Your task to perform on an android device: open app "Contacts" Image 0: 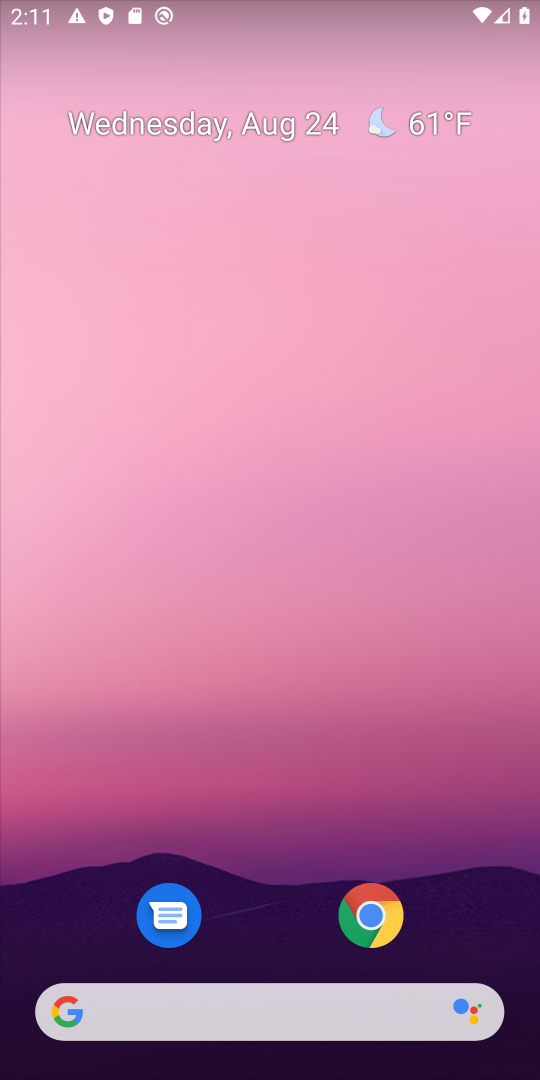
Step 0: drag from (245, 862) to (250, 216)
Your task to perform on an android device: open app "Contacts" Image 1: 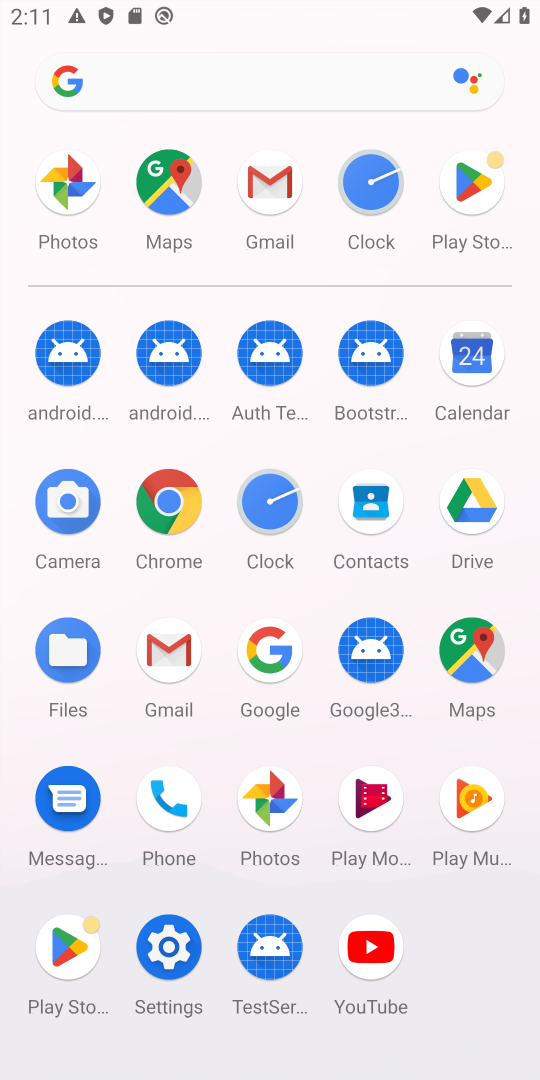
Step 1: click (478, 193)
Your task to perform on an android device: open app "Contacts" Image 2: 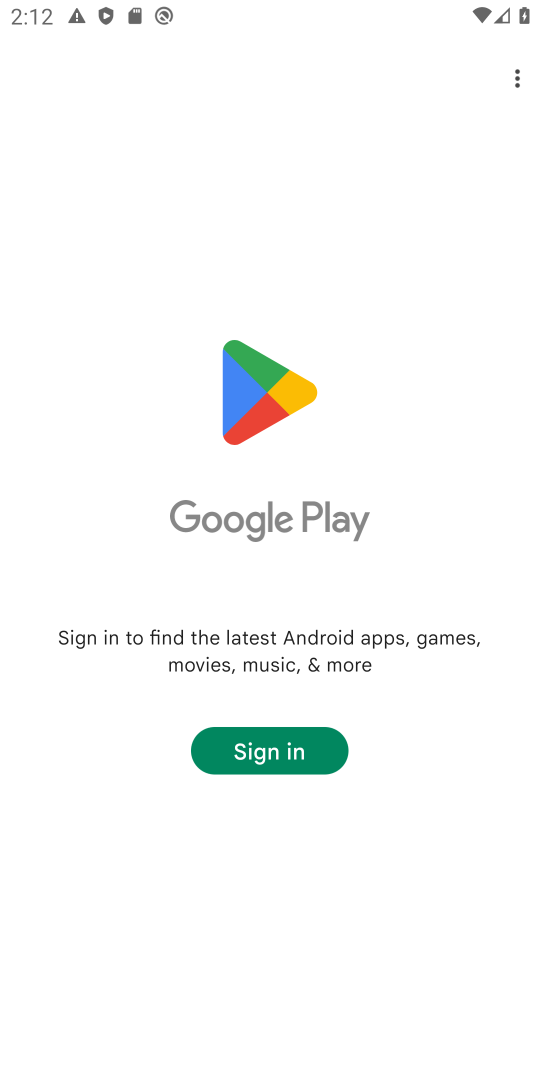
Step 2: task complete